Your task to perform on an android device: Open Chrome and go to the settings page Image 0: 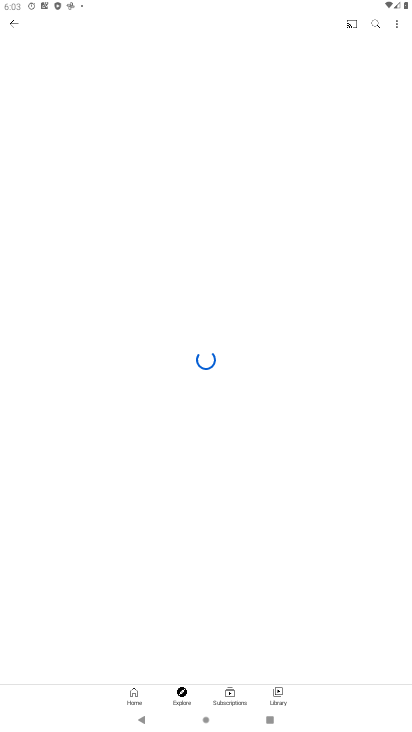
Step 0: drag from (296, 236) to (249, 79)
Your task to perform on an android device: Open Chrome and go to the settings page Image 1: 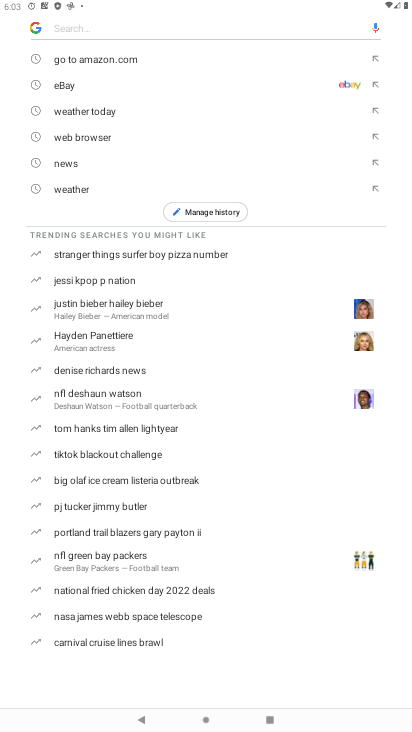
Step 1: press home button
Your task to perform on an android device: Open Chrome and go to the settings page Image 2: 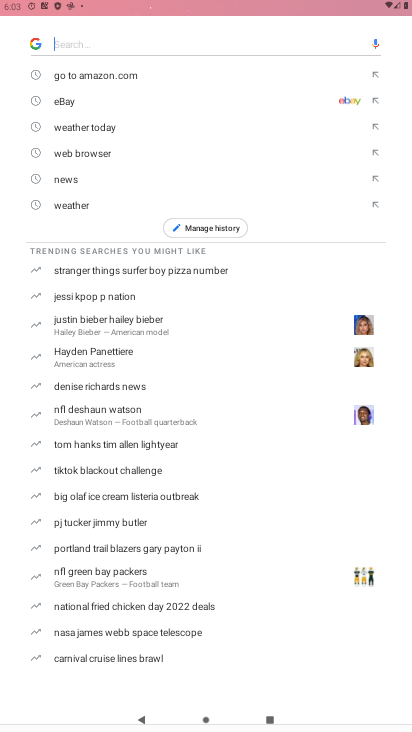
Step 2: drag from (380, 677) to (141, 71)
Your task to perform on an android device: Open Chrome and go to the settings page Image 3: 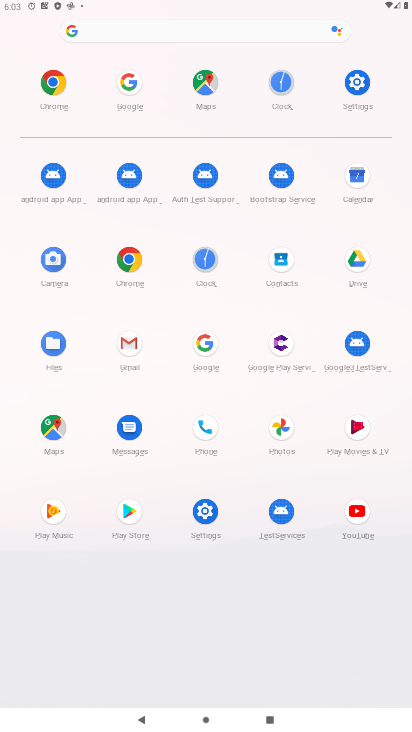
Step 3: click (131, 255)
Your task to perform on an android device: Open Chrome and go to the settings page Image 4: 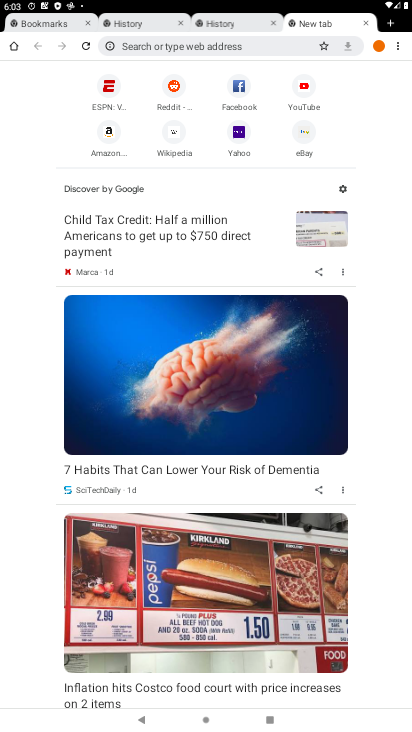
Step 4: click (396, 43)
Your task to perform on an android device: Open Chrome and go to the settings page Image 5: 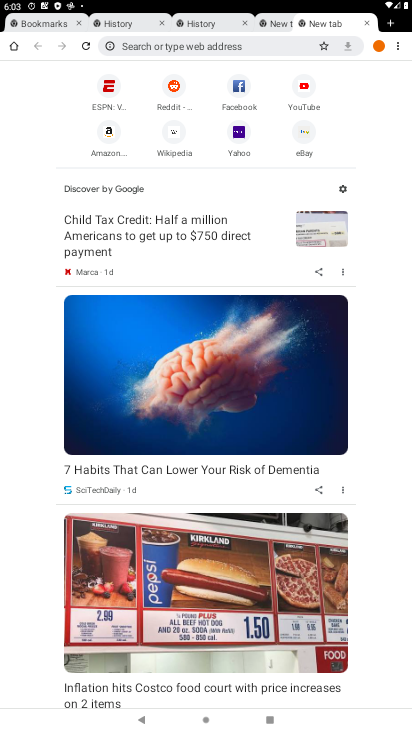
Step 5: click (395, 46)
Your task to perform on an android device: Open Chrome and go to the settings page Image 6: 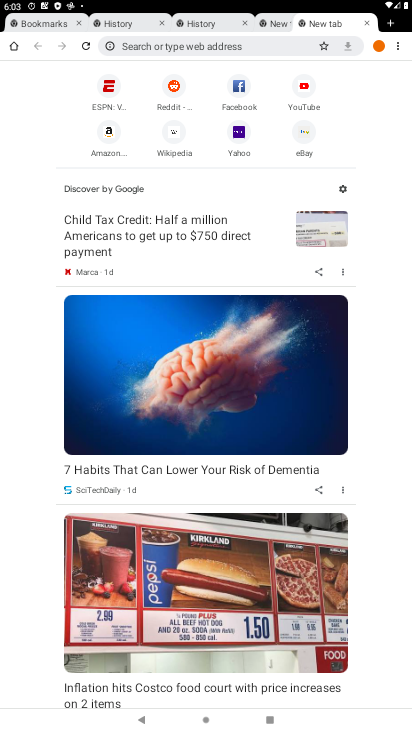
Step 6: click (396, 41)
Your task to perform on an android device: Open Chrome and go to the settings page Image 7: 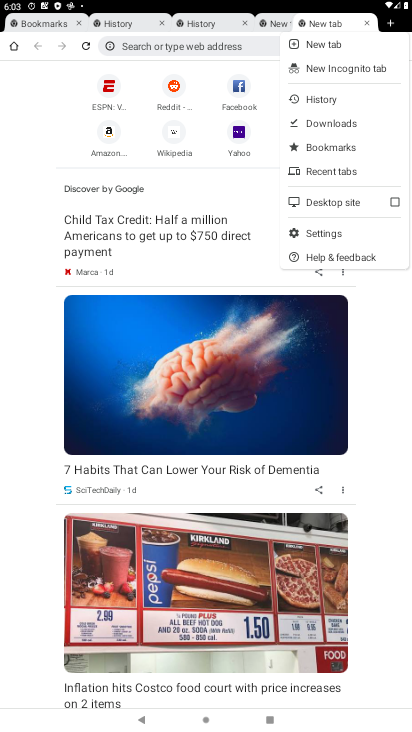
Step 7: click (320, 231)
Your task to perform on an android device: Open Chrome and go to the settings page Image 8: 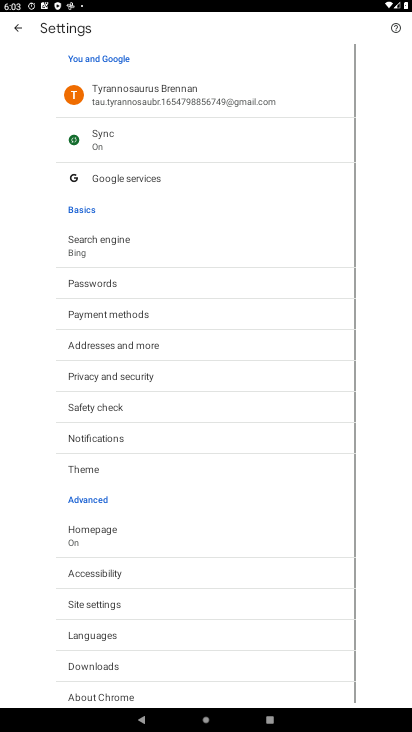
Step 8: task complete